Your task to perform on an android device: Open calendar and show me the fourth week of next month Image 0: 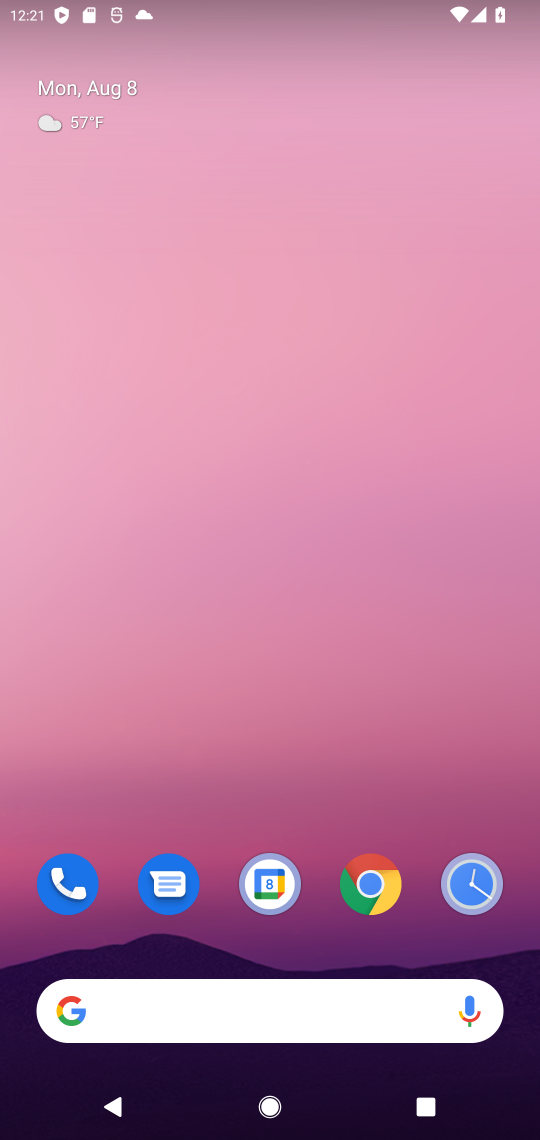
Step 0: click (277, 888)
Your task to perform on an android device: Open calendar and show me the fourth week of next month Image 1: 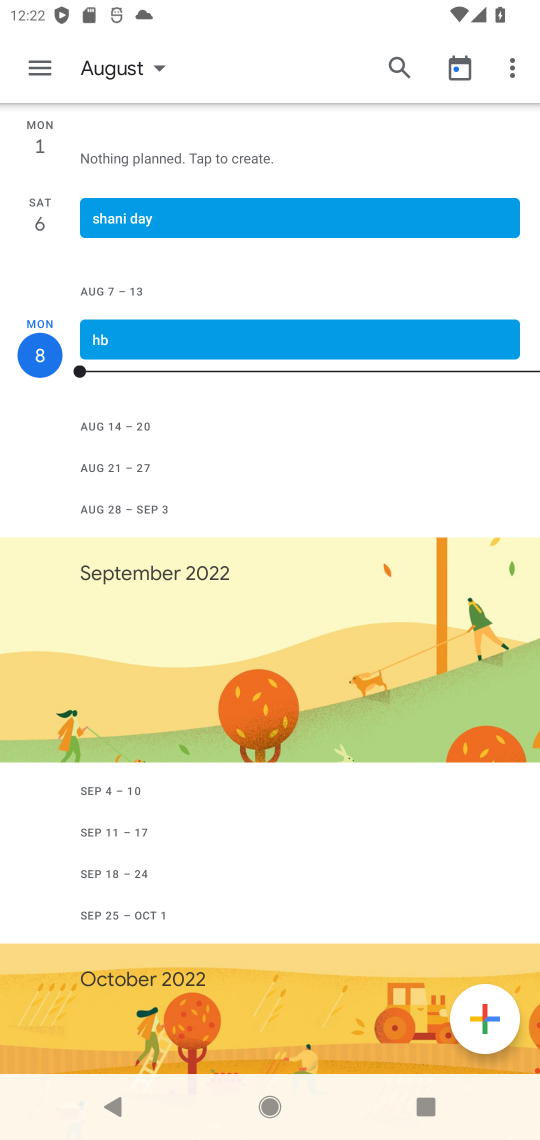
Step 1: click (108, 77)
Your task to perform on an android device: Open calendar and show me the fourth week of next month Image 2: 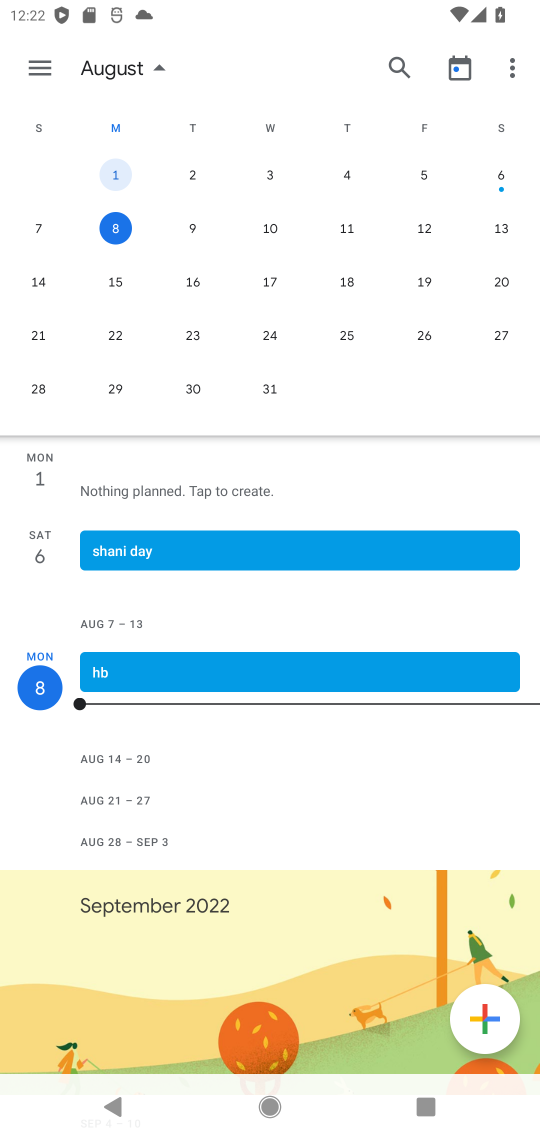
Step 2: drag from (457, 302) to (30, 236)
Your task to perform on an android device: Open calendar and show me the fourth week of next month Image 3: 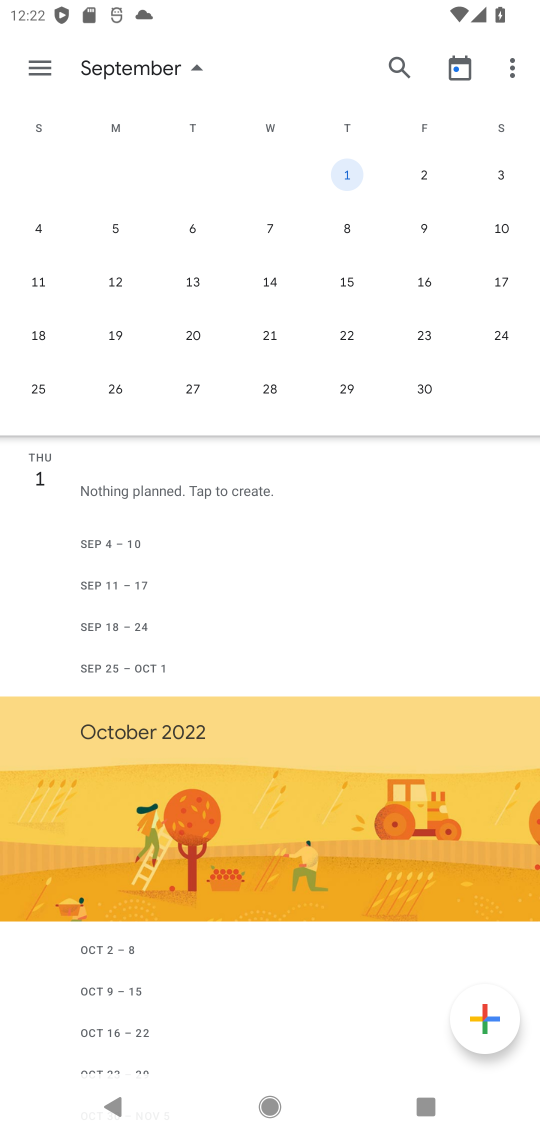
Step 3: click (40, 341)
Your task to perform on an android device: Open calendar and show me the fourth week of next month Image 4: 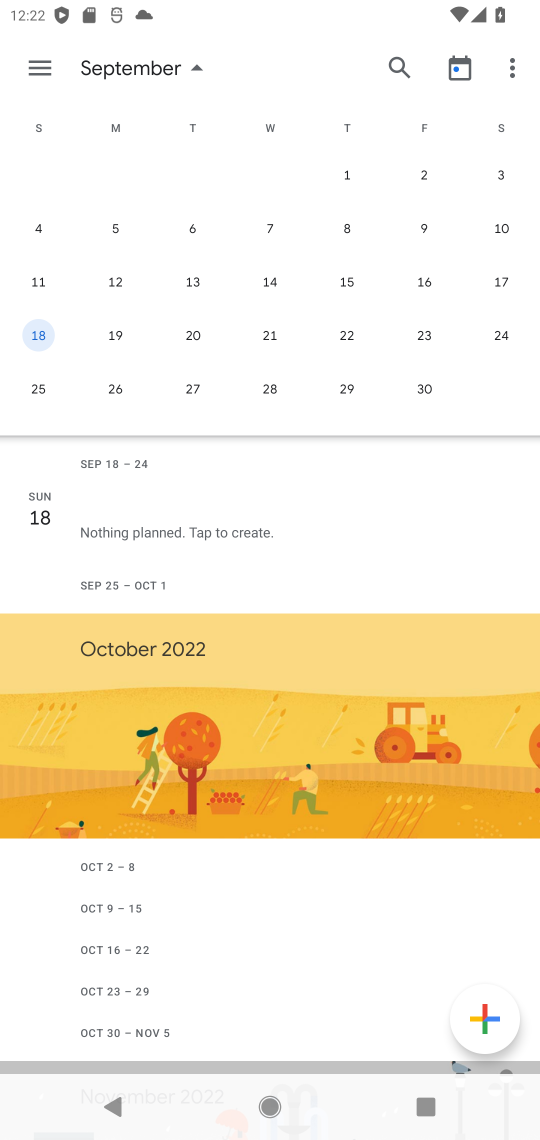
Step 4: task complete